Your task to perform on an android device: turn notification dots on Image 0: 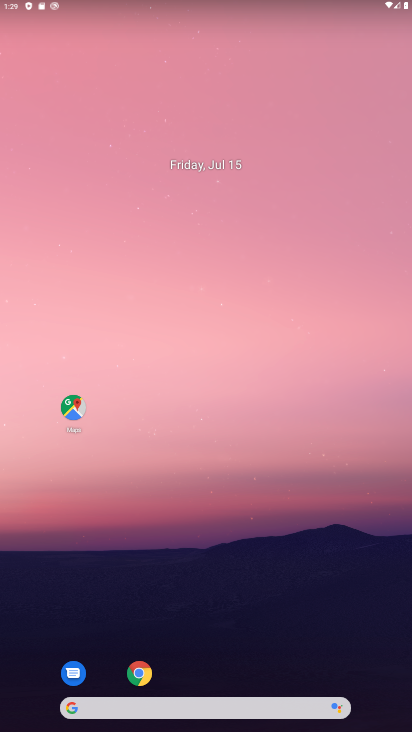
Step 0: drag from (301, 607) to (270, 77)
Your task to perform on an android device: turn notification dots on Image 1: 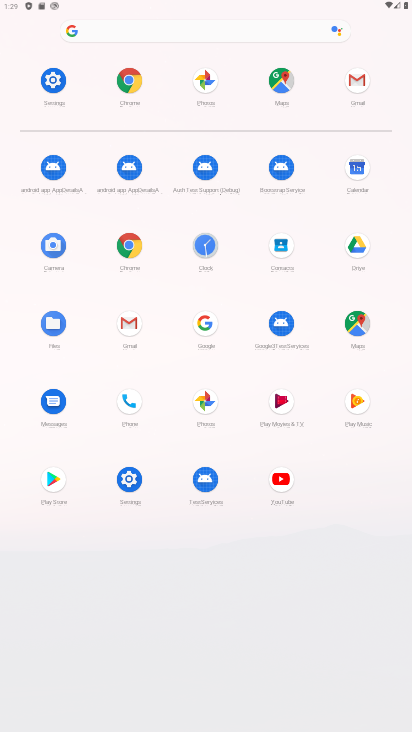
Step 1: click (49, 93)
Your task to perform on an android device: turn notification dots on Image 2: 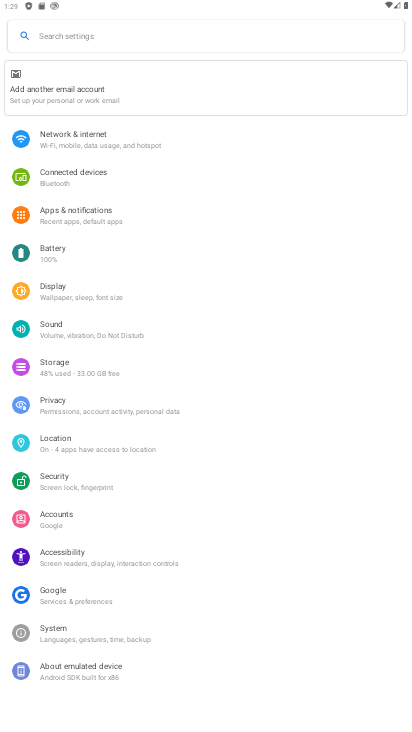
Step 2: click (80, 216)
Your task to perform on an android device: turn notification dots on Image 3: 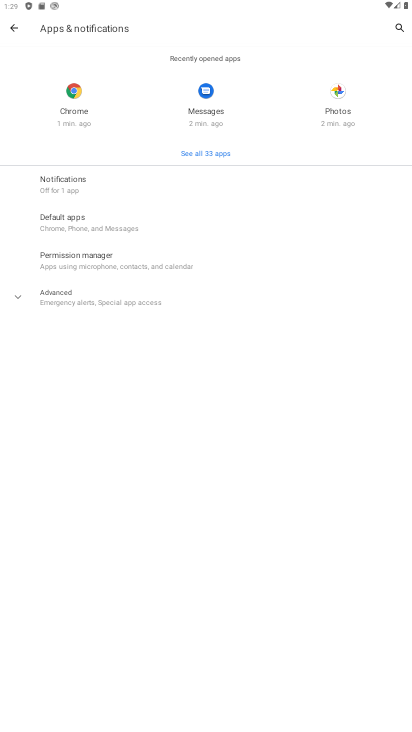
Step 3: click (58, 185)
Your task to perform on an android device: turn notification dots on Image 4: 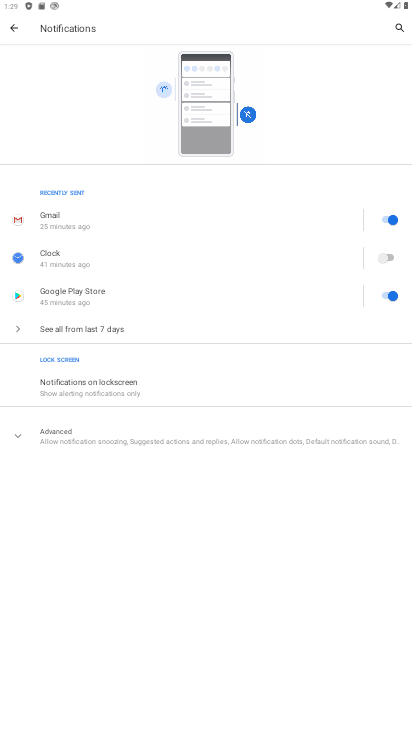
Step 4: click (110, 443)
Your task to perform on an android device: turn notification dots on Image 5: 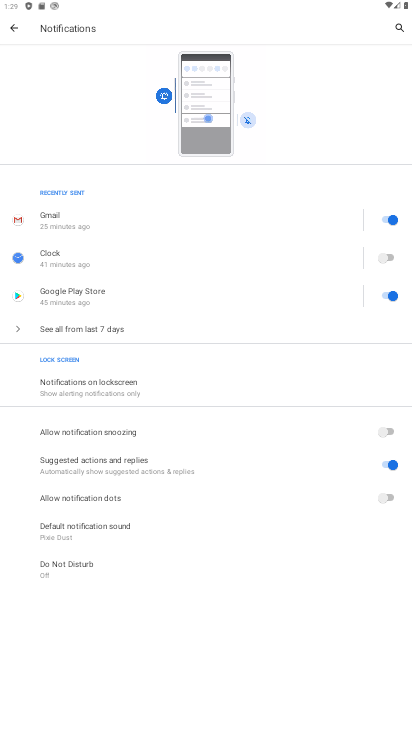
Step 5: click (378, 493)
Your task to perform on an android device: turn notification dots on Image 6: 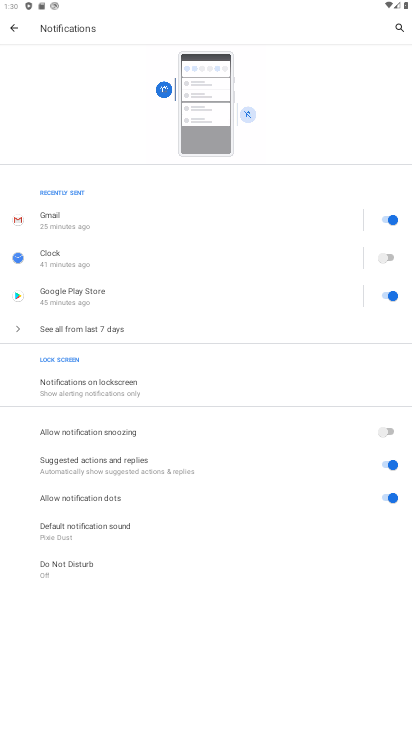
Step 6: task complete